Your task to perform on an android device: Open Amazon Image 0: 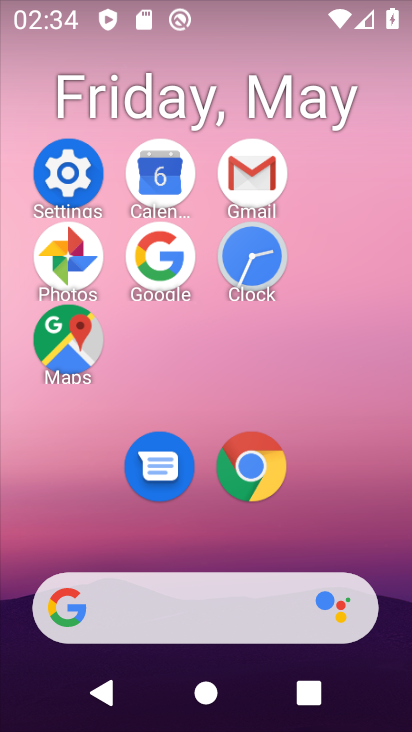
Step 0: click (274, 471)
Your task to perform on an android device: Open Amazon Image 1: 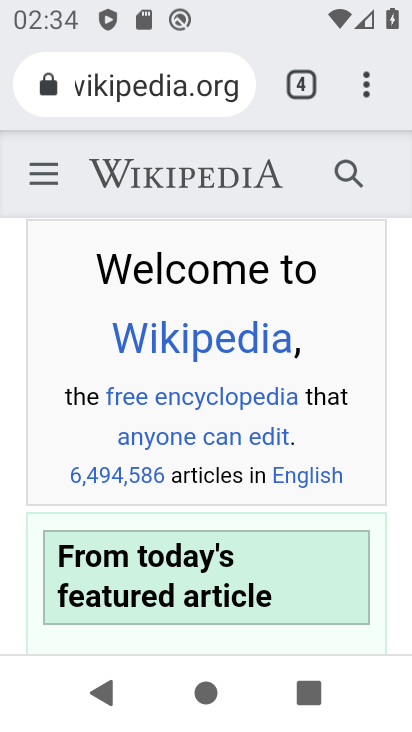
Step 1: click (303, 83)
Your task to perform on an android device: Open Amazon Image 2: 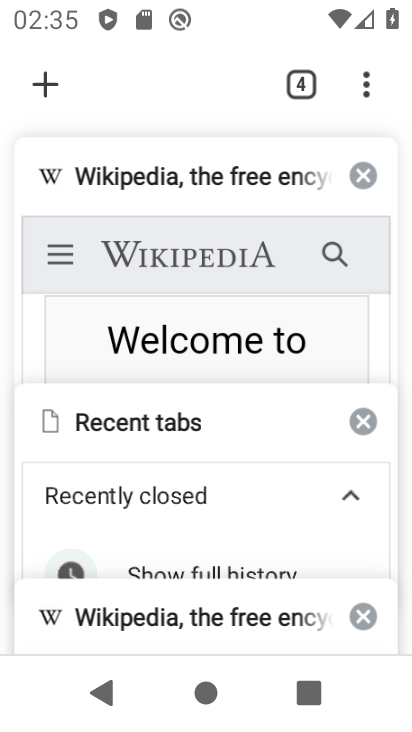
Step 2: drag from (203, 286) to (231, 175)
Your task to perform on an android device: Open Amazon Image 3: 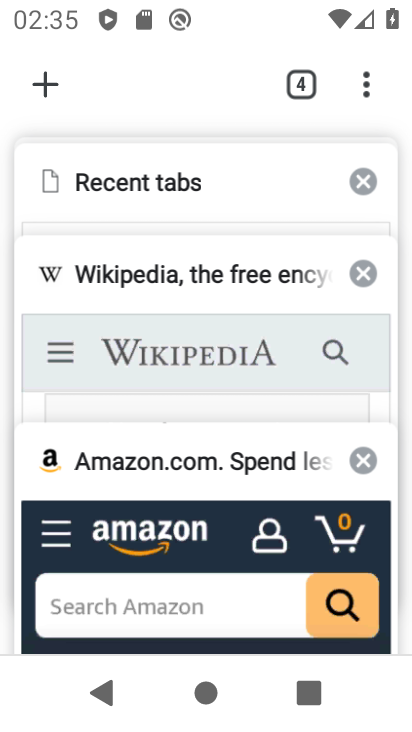
Step 3: click (188, 464)
Your task to perform on an android device: Open Amazon Image 4: 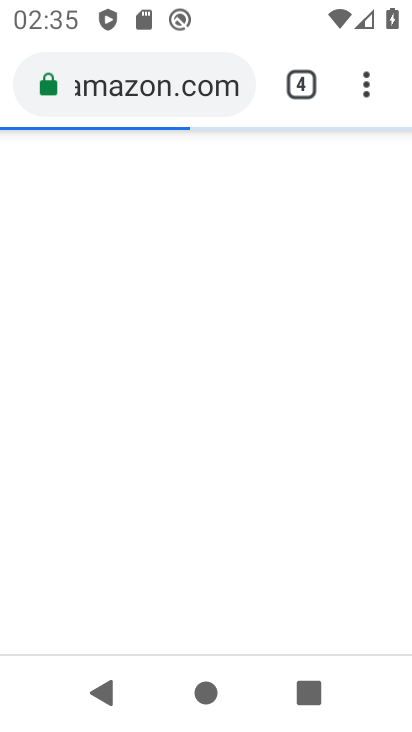
Step 4: task complete